Your task to perform on an android device: Go to settings Image 0: 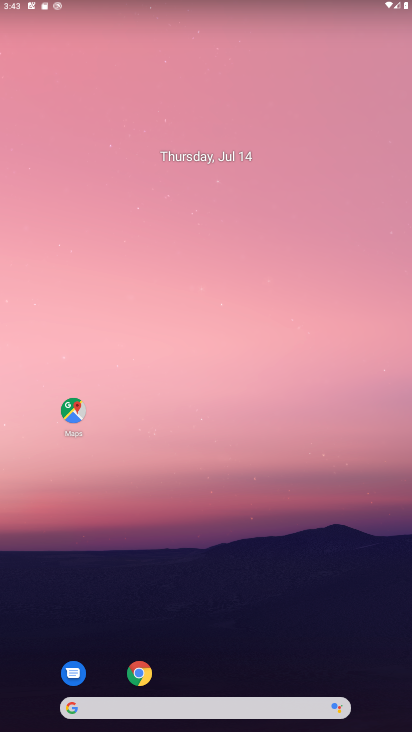
Step 0: drag from (193, 670) to (243, 125)
Your task to perform on an android device: Go to settings Image 1: 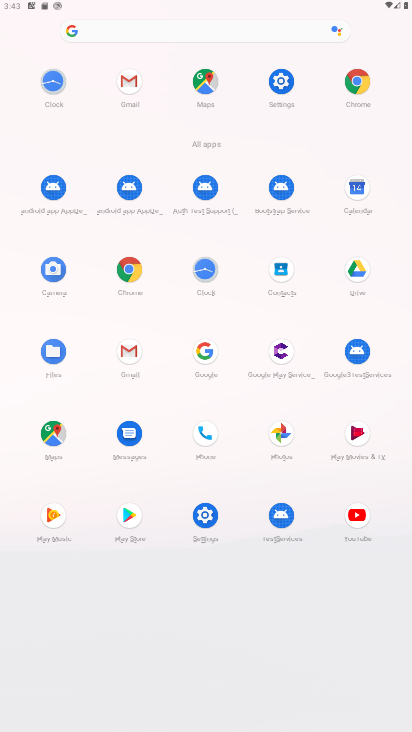
Step 1: click (276, 79)
Your task to perform on an android device: Go to settings Image 2: 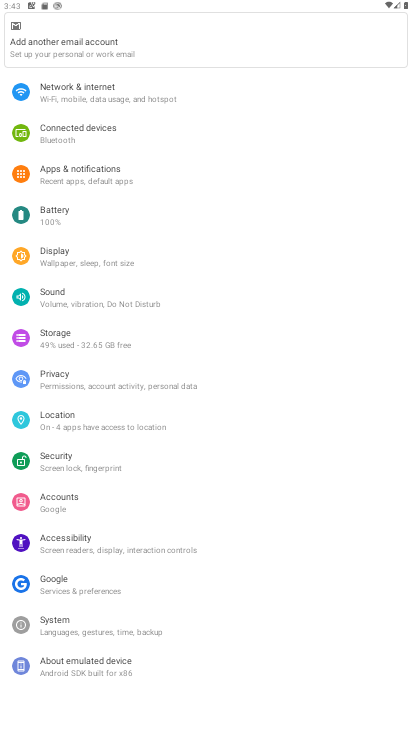
Step 2: task complete